Your task to perform on an android device: Go to notification settings Image 0: 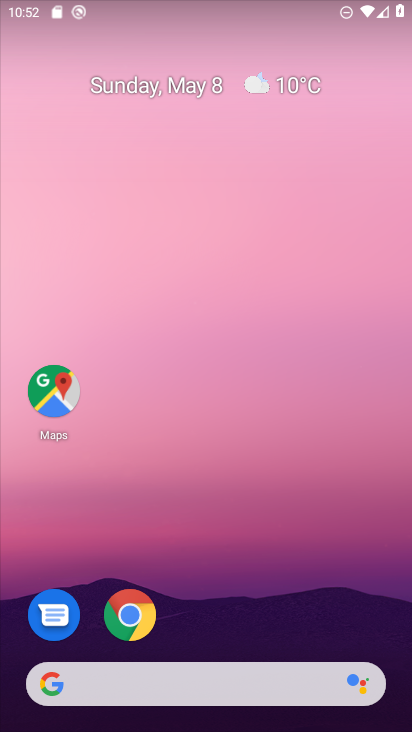
Step 0: drag from (328, 633) to (284, 45)
Your task to perform on an android device: Go to notification settings Image 1: 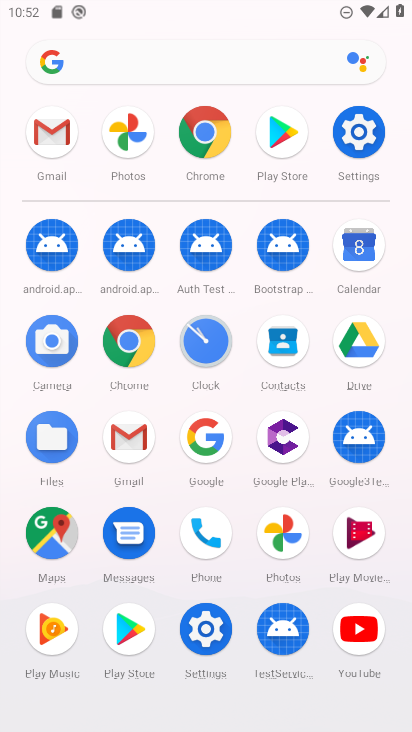
Step 1: click (356, 132)
Your task to perform on an android device: Go to notification settings Image 2: 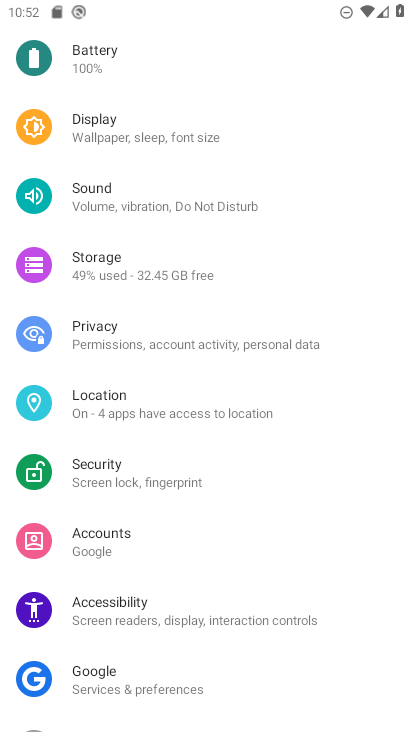
Step 2: drag from (233, 152) to (290, 585)
Your task to perform on an android device: Go to notification settings Image 3: 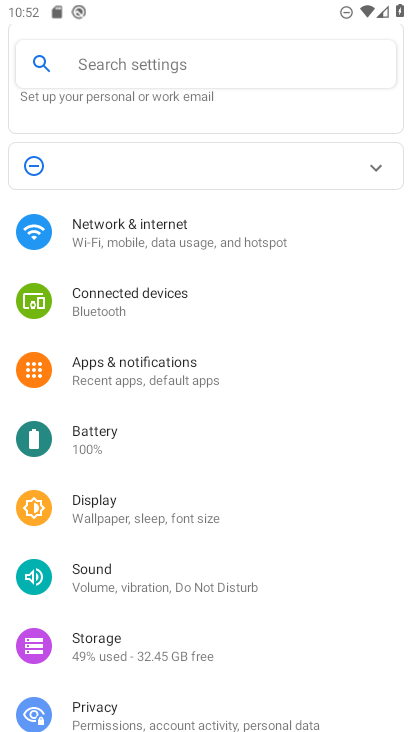
Step 3: click (151, 367)
Your task to perform on an android device: Go to notification settings Image 4: 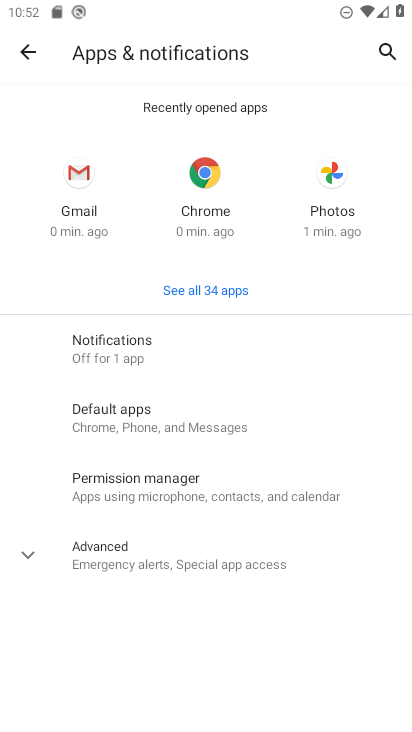
Step 4: click (168, 351)
Your task to perform on an android device: Go to notification settings Image 5: 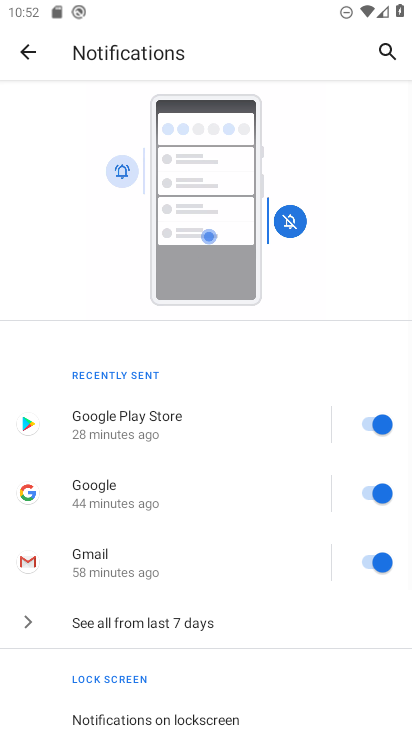
Step 5: task complete